Your task to perform on an android device: turn off translation in the chrome app Image 0: 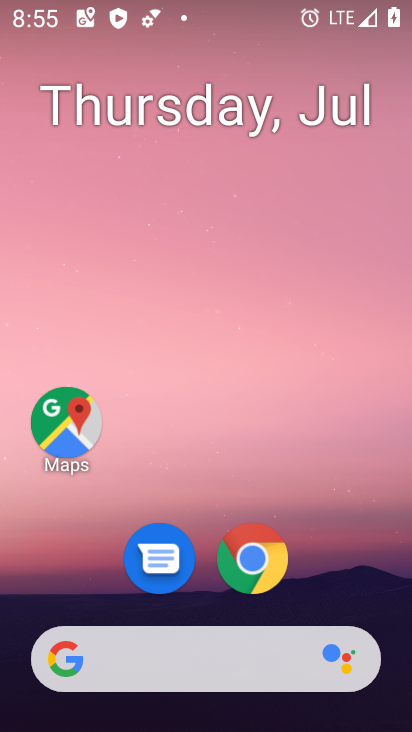
Step 0: drag from (189, 668) to (223, 249)
Your task to perform on an android device: turn off translation in the chrome app Image 1: 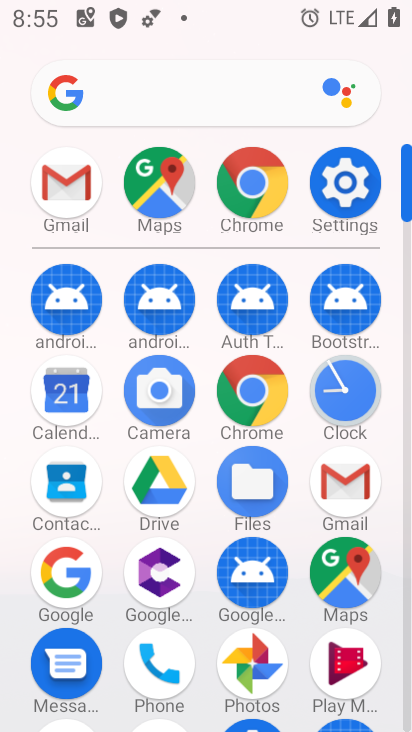
Step 1: click (254, 207)
Your task to perform on an android device: turn off translation in the chrome app Image 2: 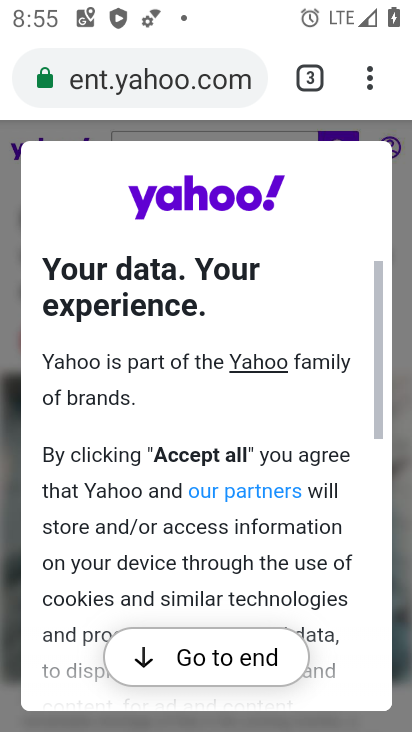
Step 2: click (366, 75)
Your task to perform on an android device: turn off translation in the chrome app Image 3: 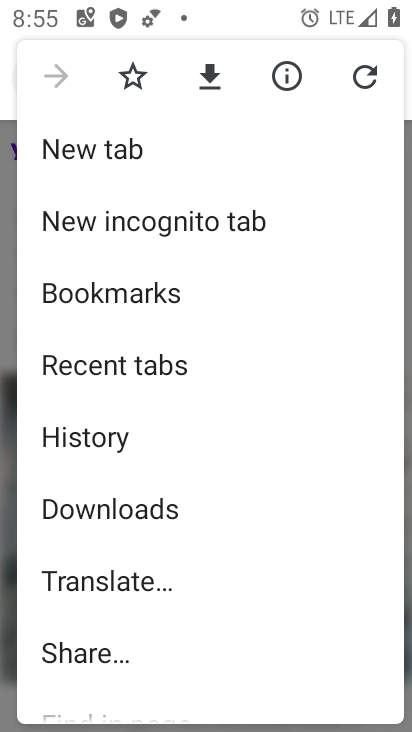
Step 3: click (96, 582)
Your task to perform on an android device: turn off translation in the chrome app Image 4: 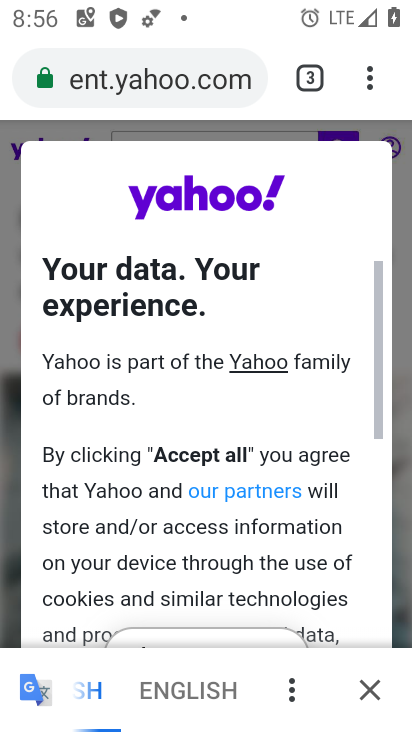
Step 4: click (290, 686)
Your task to perform on an android device: turn off translation in the chrome app Image 5: 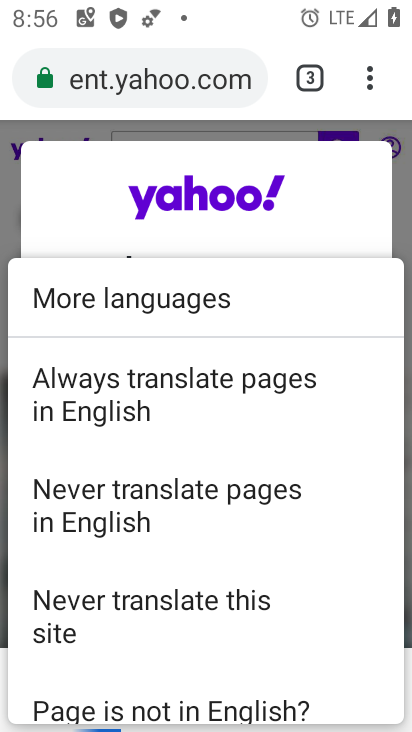
Step 5: click (219, 605)
Your task to perform on an android device: turn off translation in the chrome app Image 6: 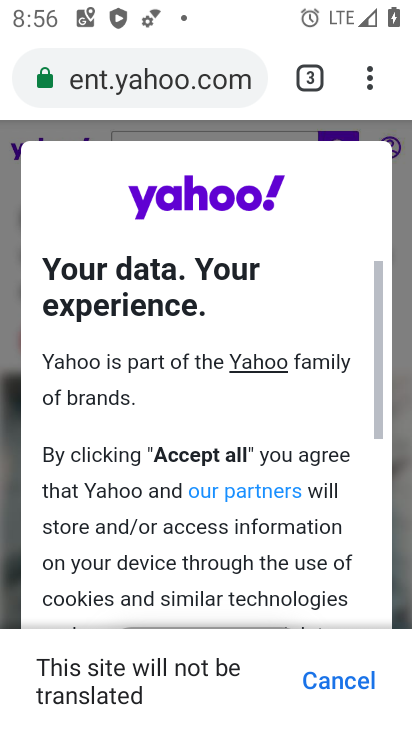
Step 6: task complete